Your task to perform on an android device: turn off location history Image 0: 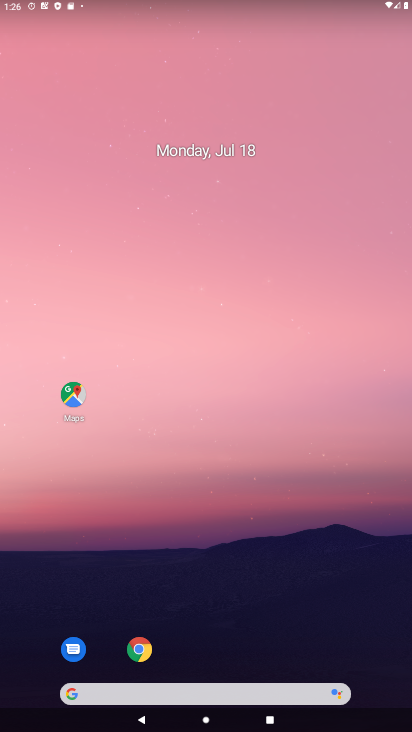
Step 0: drag from (219, 679) to (252, 114)
Your task to perform on an android device: turn off location history Image 1: 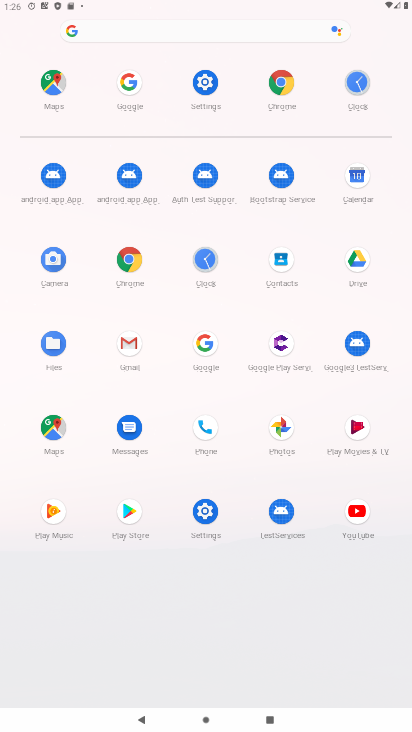
Step 1: click (214, 83)
Your task to perform on an android device: turn off location history Image 2: 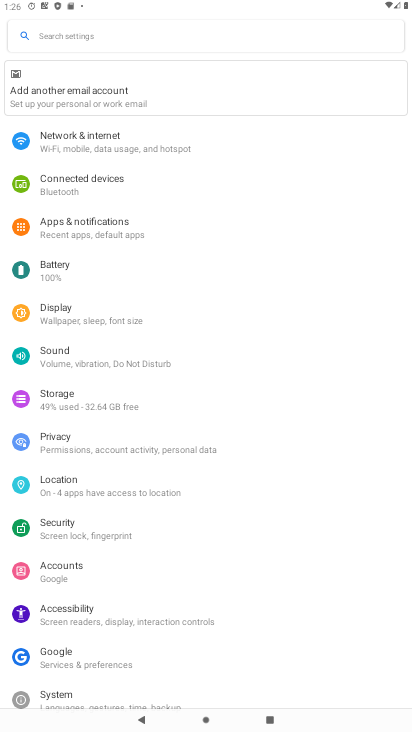
Step 2: click (81, 493)
Your task to perform on an android device: turn off location history Image 3: 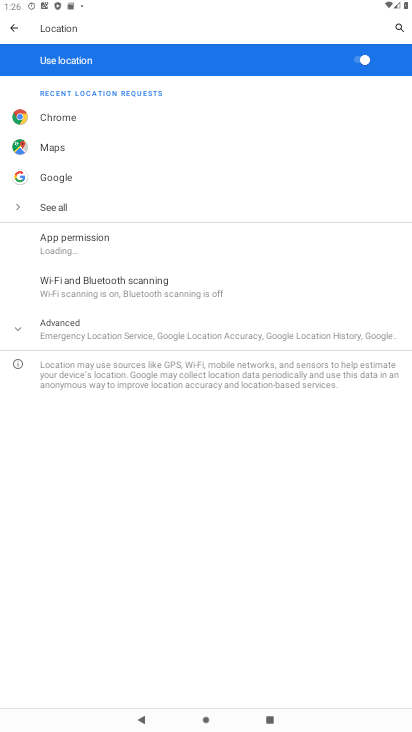
Step 3: click (95, 326)
Your task to perform on an android device: turn off location history Image 4: 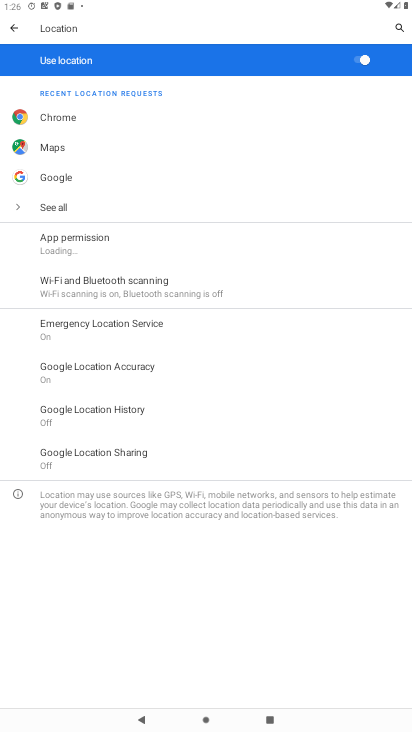
Step 4: click (108, 411)
Your task to perform on an android device: turn off location history Image 5: 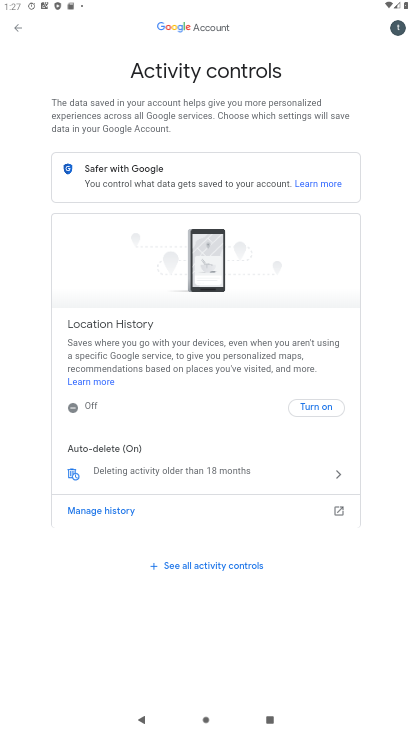
Step 5: task complete